Your task to perform on an android device: open a bookmark in the chrome app Image 0: 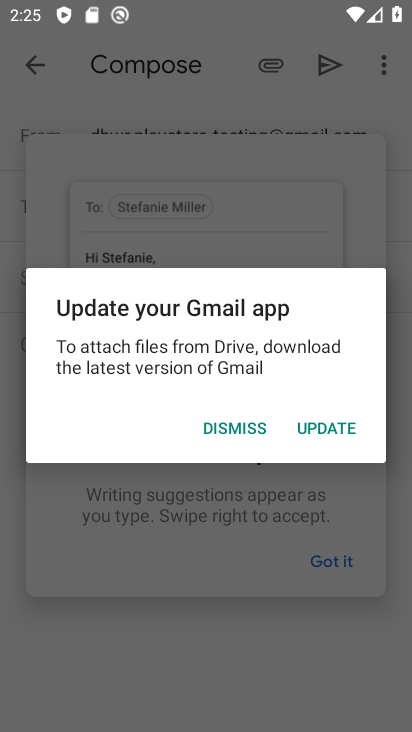
Step 0: press home button
Your task to perform on an android device: open a bookmark in the chrome app Image 1: 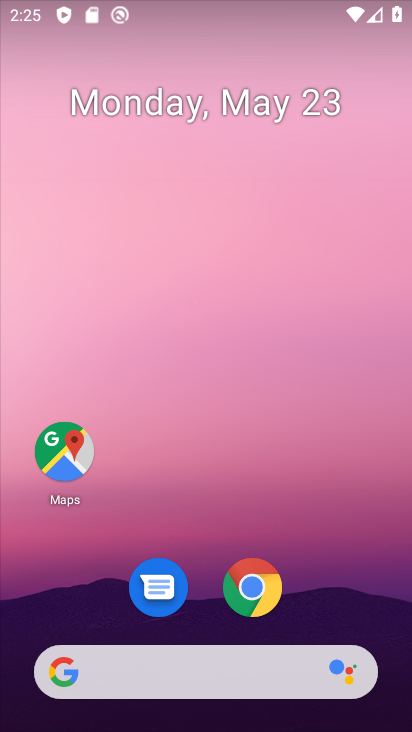
Step 1: click (242, 584)
Your task to perform on an android device: open a bookmark in the chrome app Image 2: 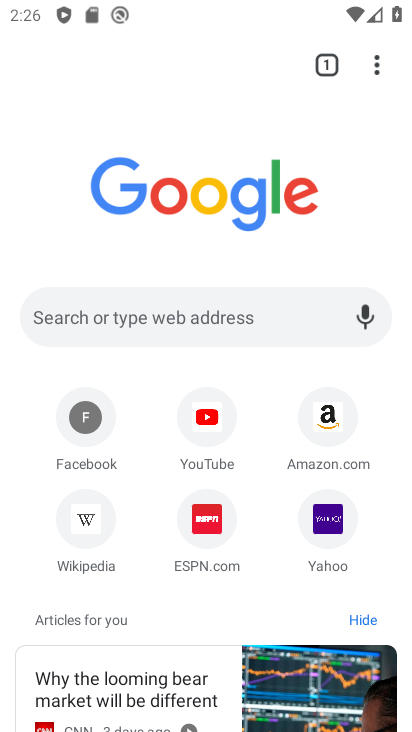
Step 2: click (378, 75)
Your task to perform on an android device: open a bookmark in the chrome app Image 3: 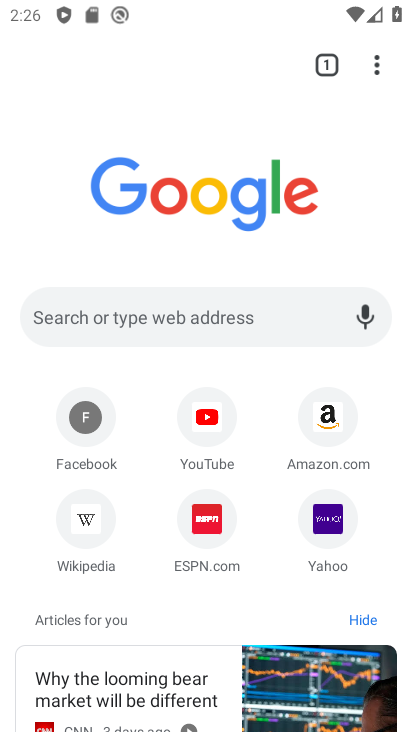
Step 3: click (377, 66)
Your task to perform on an android device: open a bookmark in the chrome app Image 4: 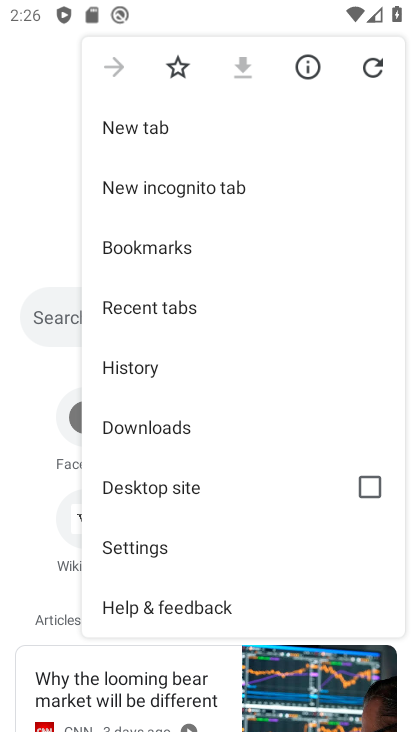
Step 4: click (178, 245)
Your task to perform on an android device: open a bookmark in the chrome app Image 5: 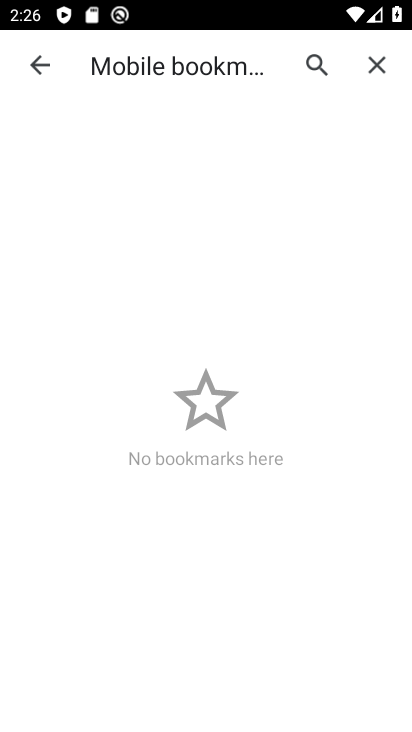
Step 5: task complete